Your task to perform on an android device: Clear all items from cart on amazon.com. Add razer blackwidow to the cart on amazon.com Image 0: 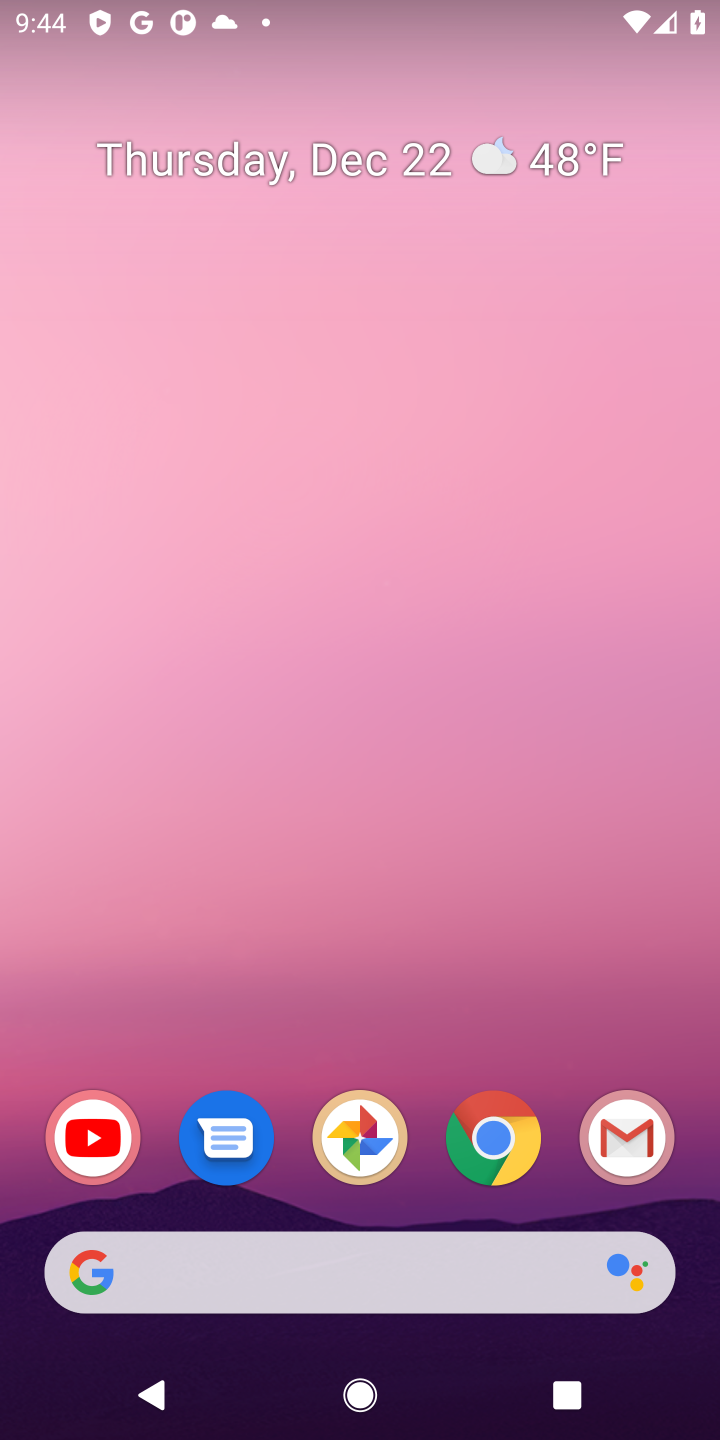
Step 0: click (486, 1142)
Your task to perform on an android device: Clear all items from cart on amazon.com. Add razer blackwidow to the cart on amazon.com Image 1: 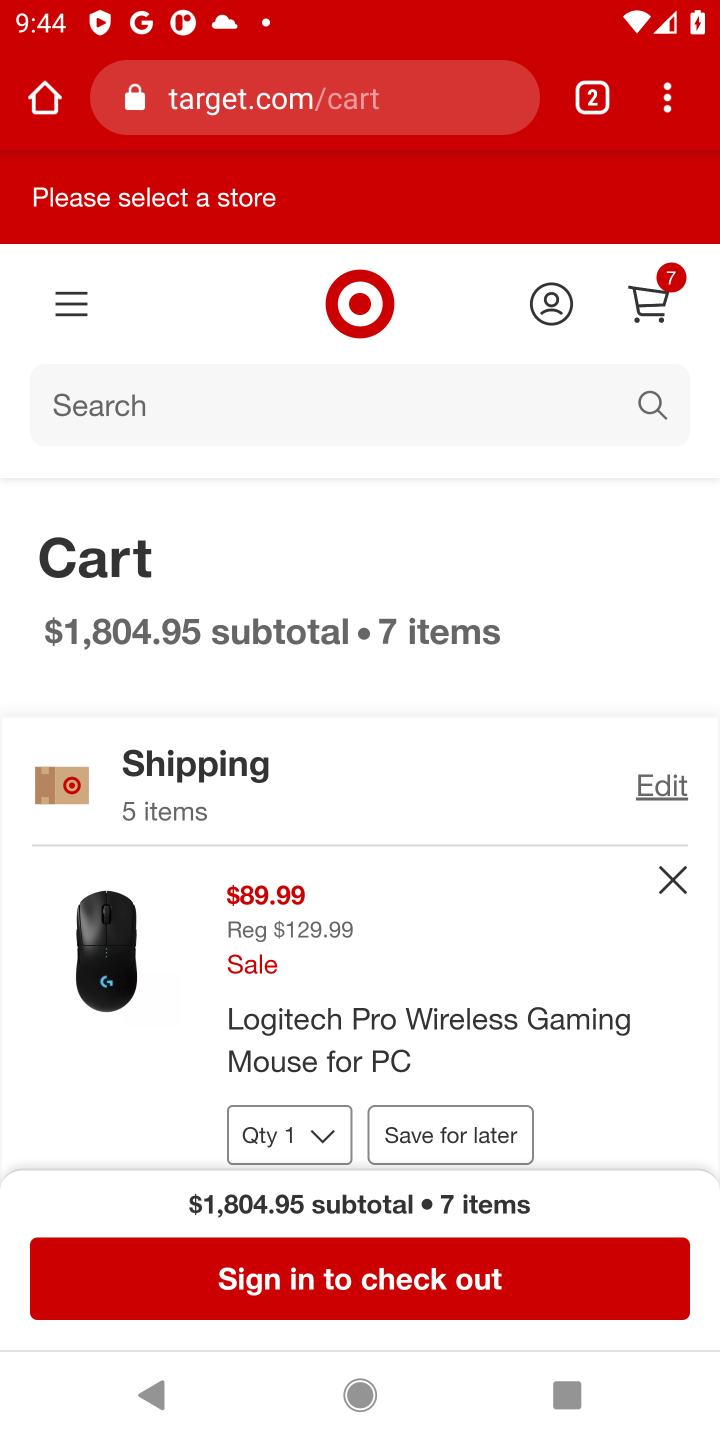
Step 1: click (212, 123)
Your task to perform on an android device: Clear all items from cart on amazon.com. Add razer blackwidow to the cart on amazon.com Image 2: 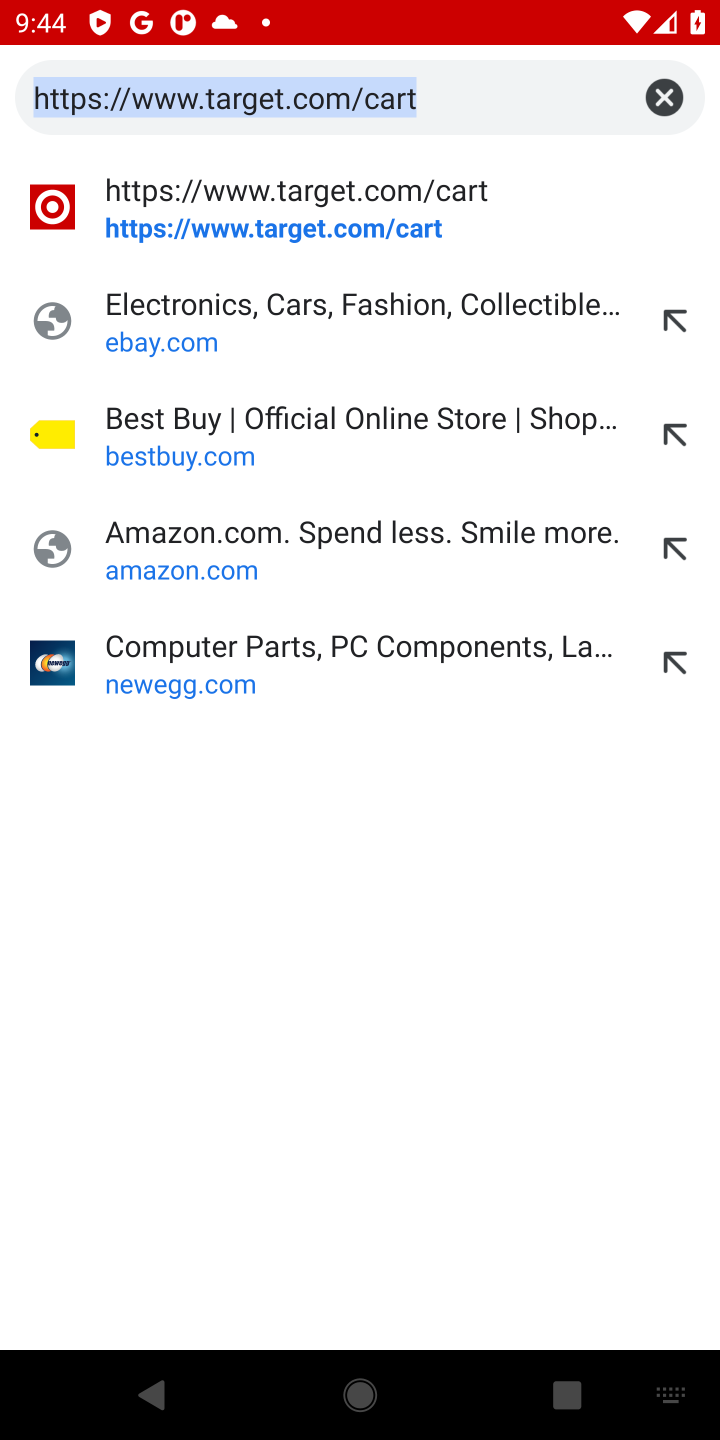
Step 2: type "amazon.com"
Your task to perform on an android device: Clear all items from cart on amazon.com. Add razer blackwidow to the cart on amazon.com Image 3: 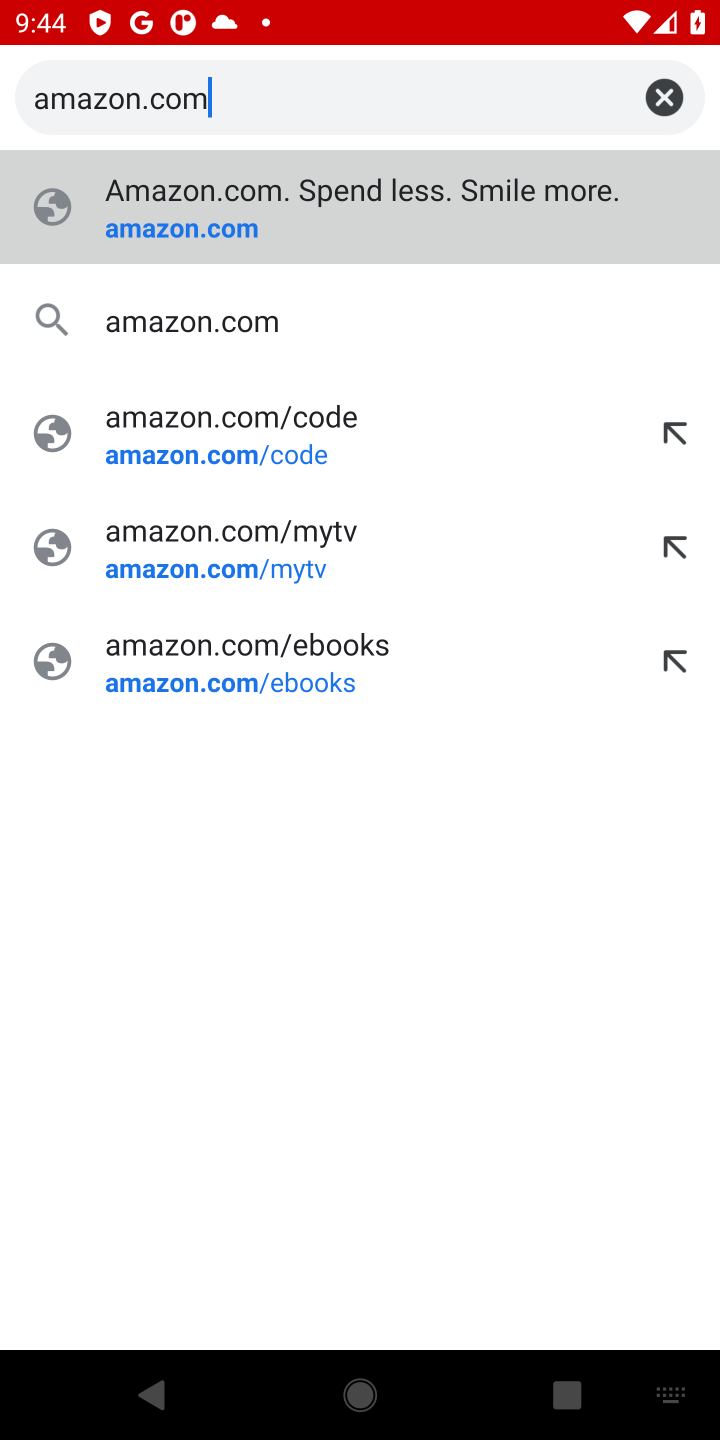
Step 3: press enter
Your task to perform on an android device: Clear all items from cart on amazon.com. Add razer blackwidow to the cart on amazon.com Image 4: 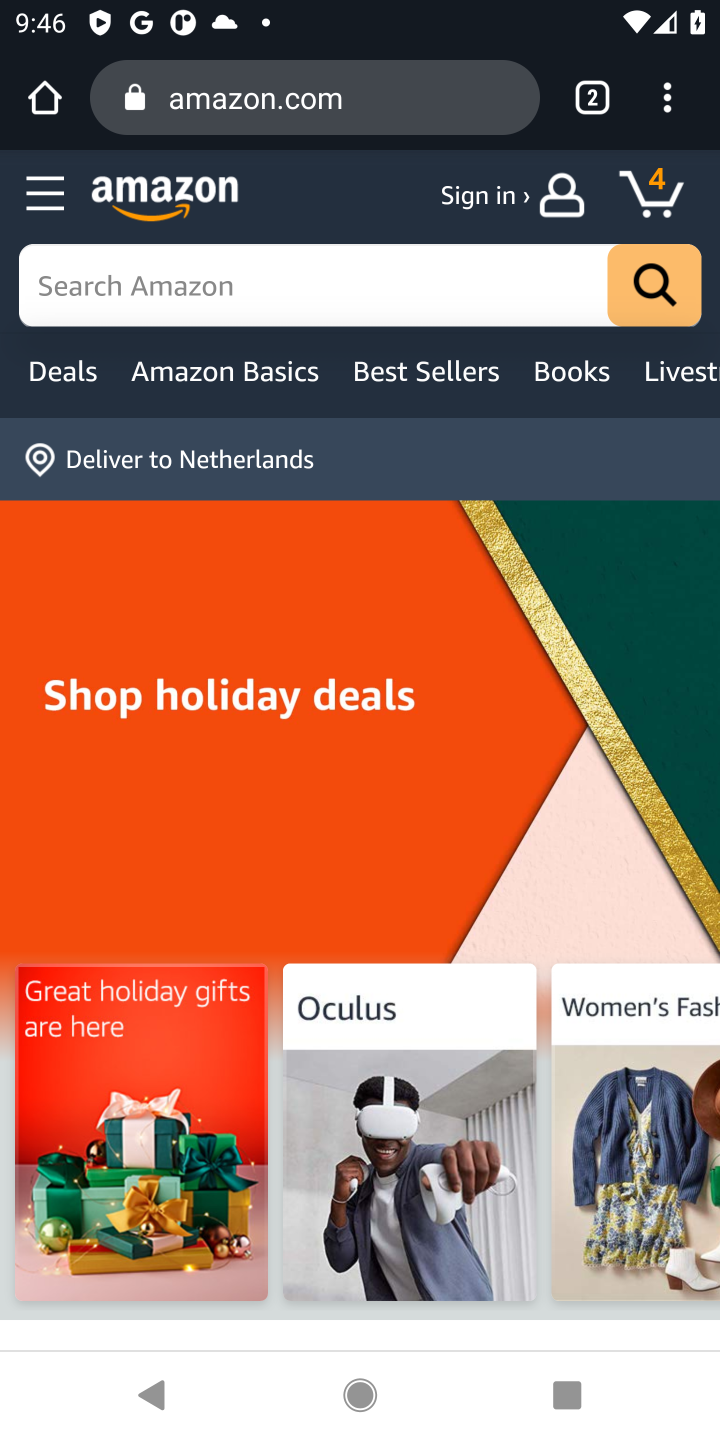
Step 4: click (636, 206)
Your task to perform on an android device: Clear all items from cart on amazon.com. Add razer blackwidow to the cart on amazon.com Image 5: 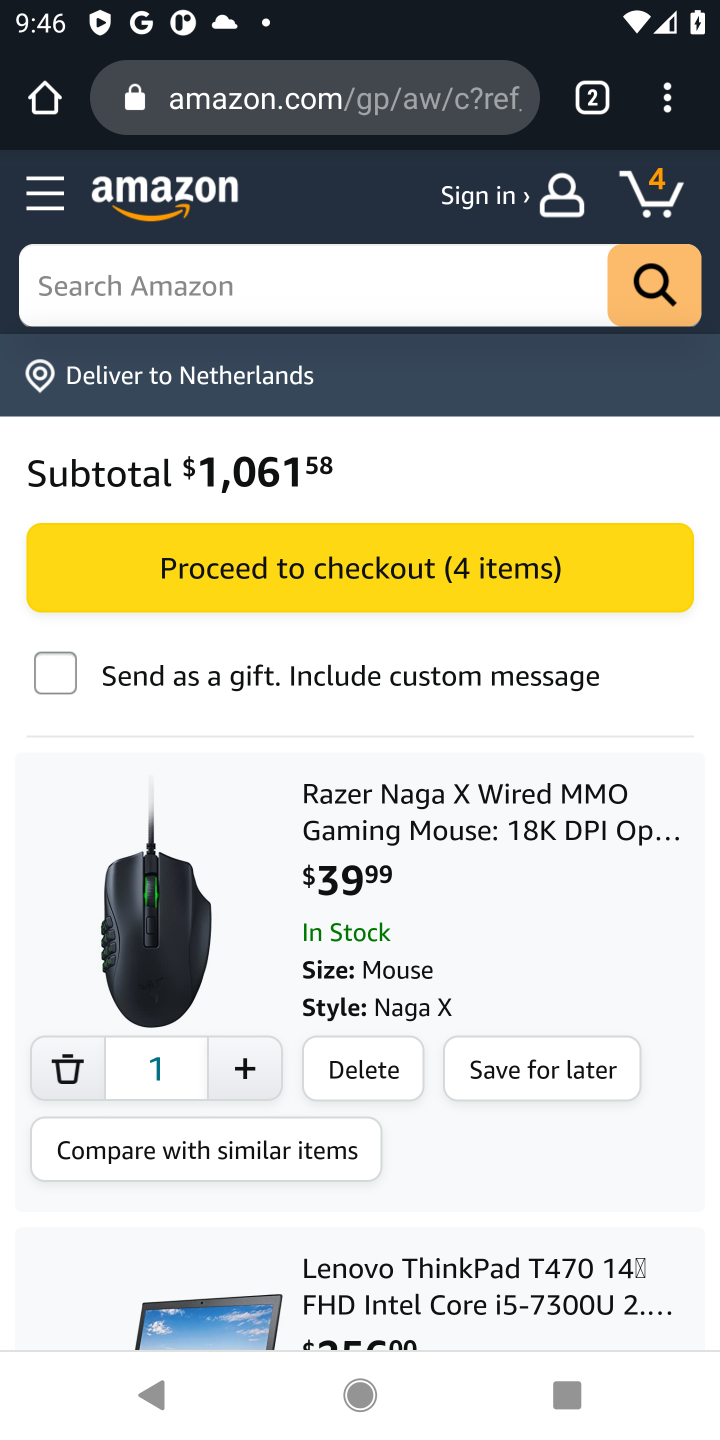
Step 5: click (358, 1086)
Your task to perform on an android device: Clear all items from cart on amazon.com. Add razer blackwidow to the cart on amazon.com Image 6: 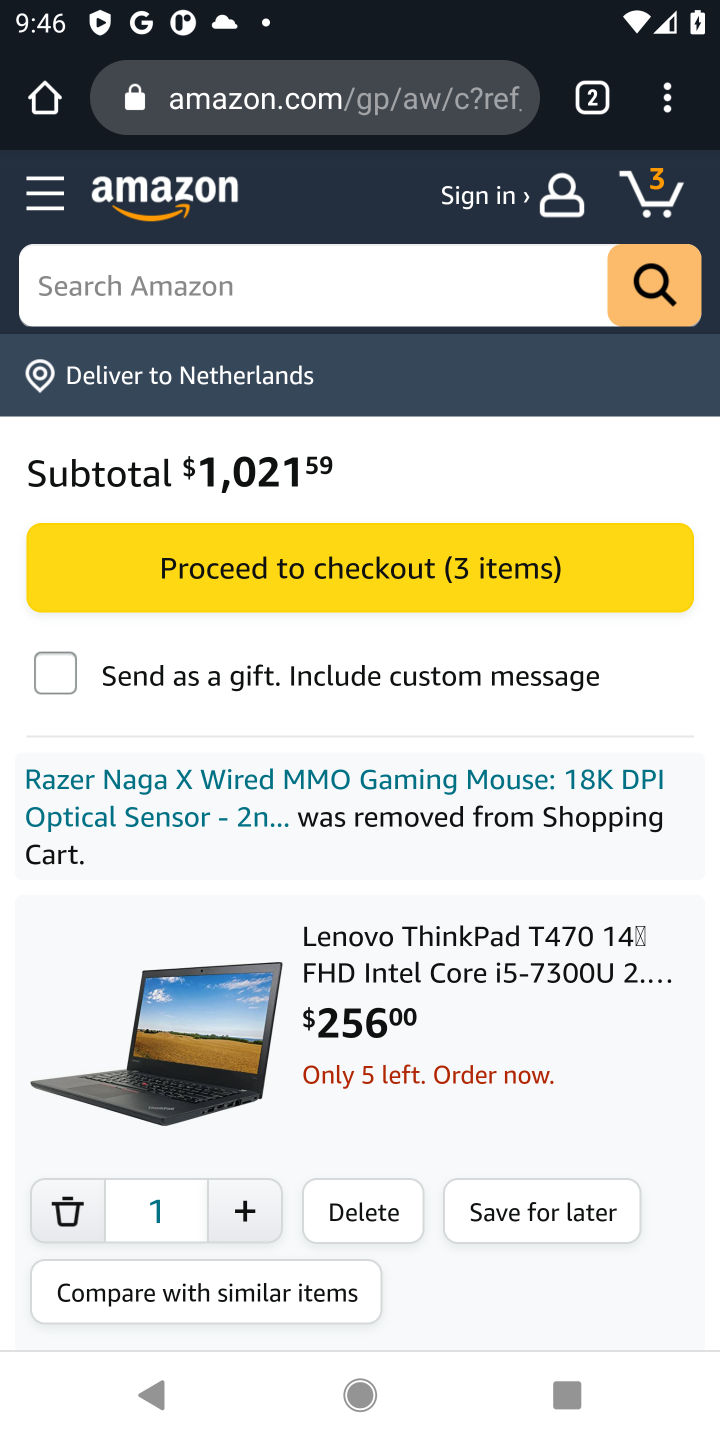
Step 6: click (359, 1210)
Your task to perform on an android device: Clear all items from cart on amazon.com. Add razer blackwidow to the cart on amazon.com Image 7: 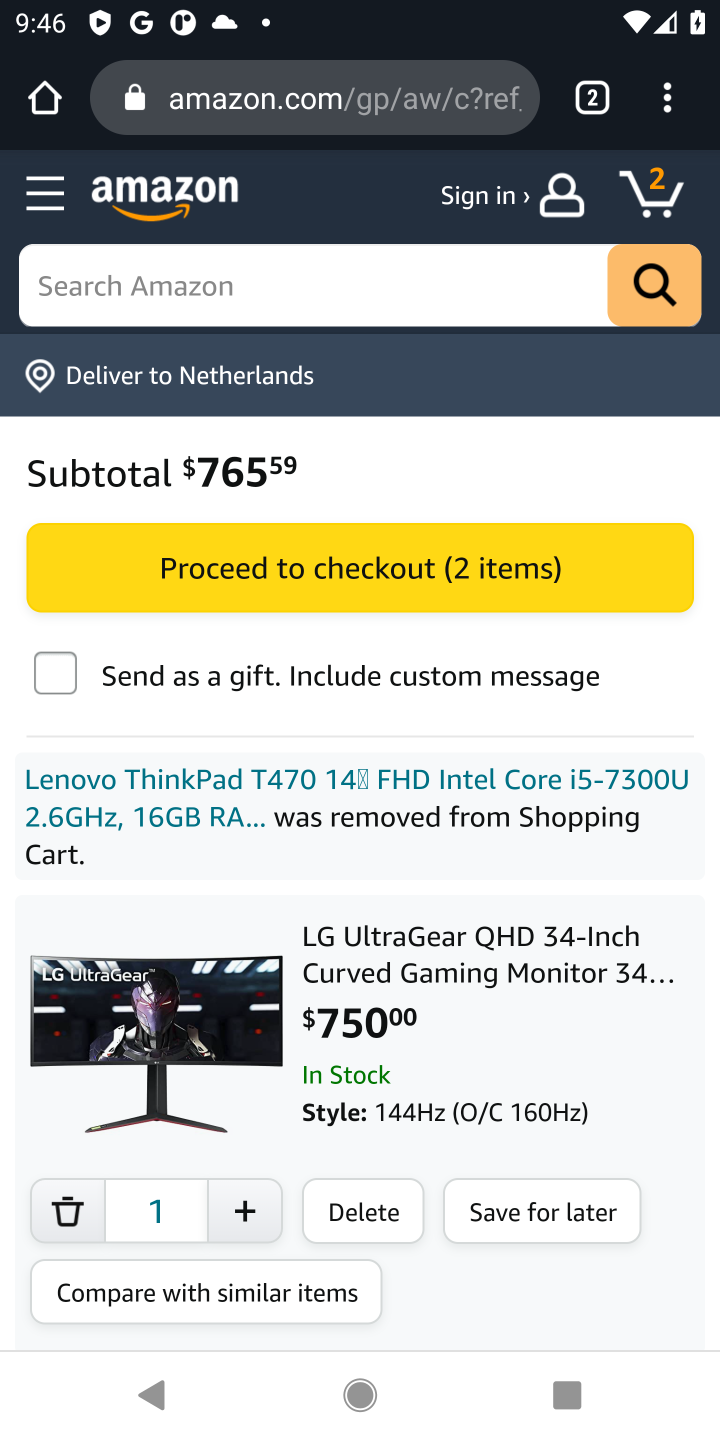
Step 7: click (372, 1201)
Your task to perform on an android device: Clear all items from cart on amazon.com. Add razer blackwidow to the cart on amazon.com Image 8: 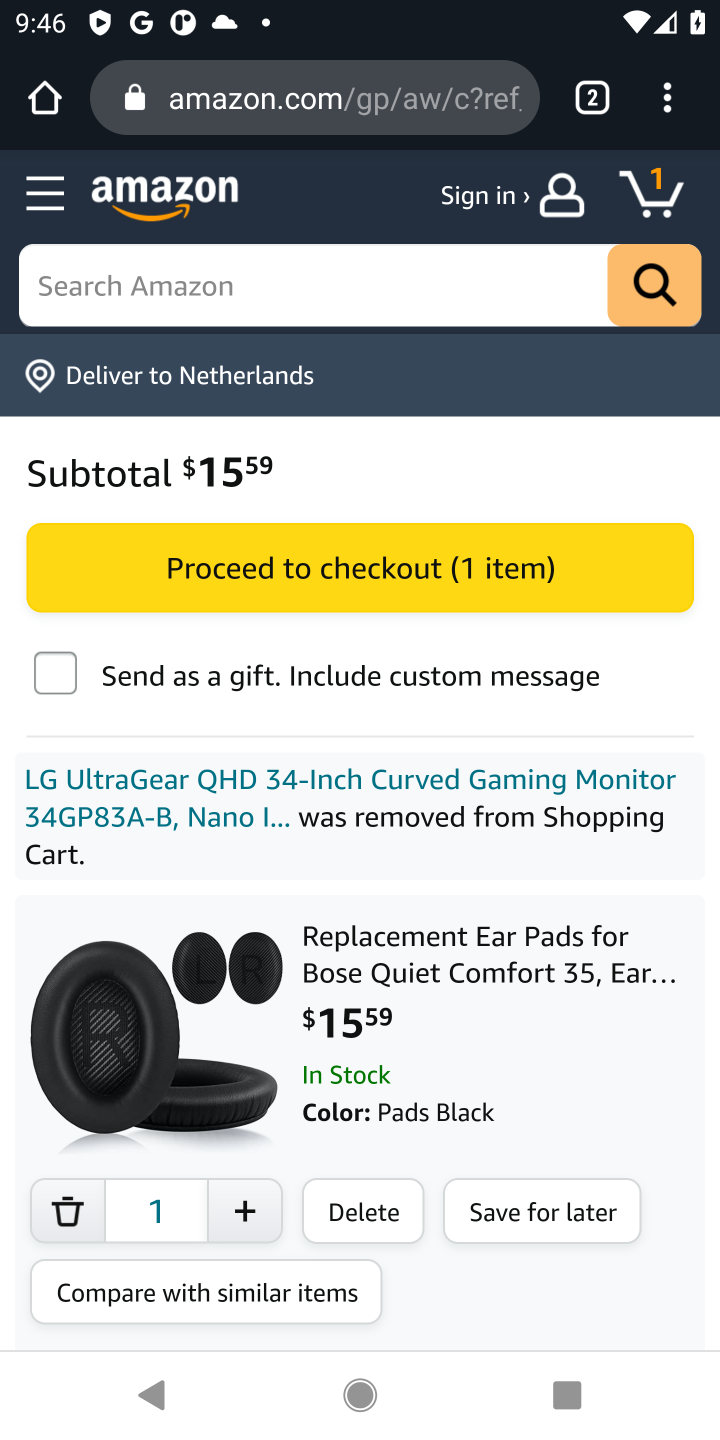
Step 8: click (366, 1215)
Your task to perform on an android device: Clear all items from cart on amazon.com. Add razer blackwidow to the cart on amazon.com Image 9: 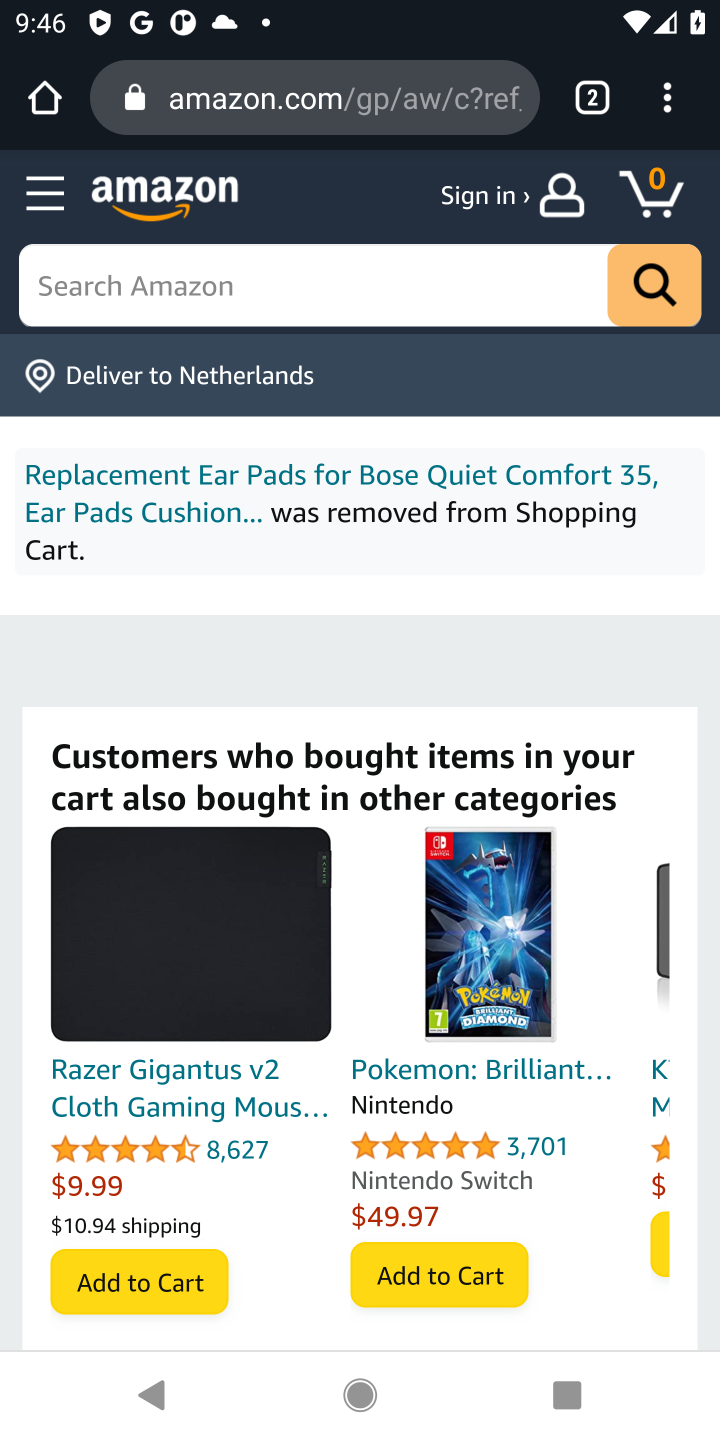
Step 9: click (354, 642)
Your task to perform on an android device: Clear all items from cart on amazon.com. Add razer blackwidow to the cart on amazon.com Image 10: 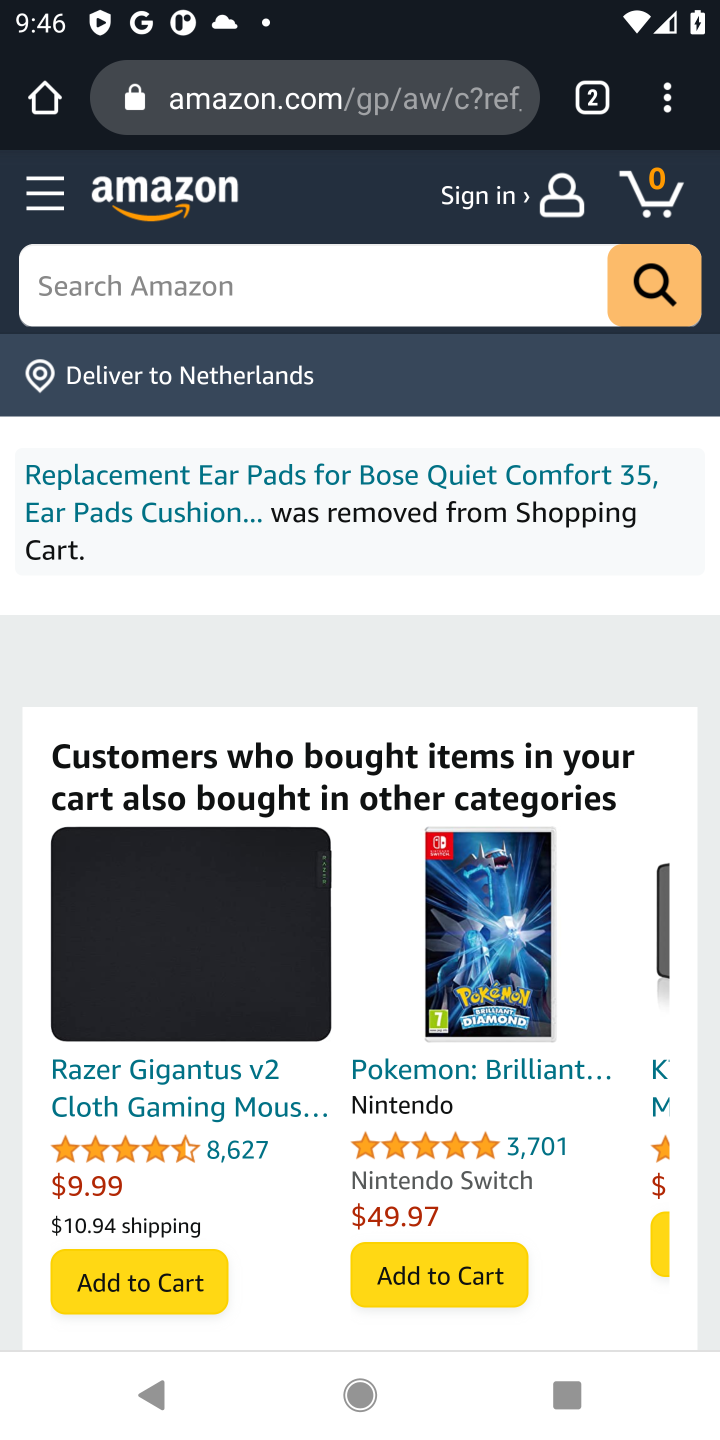
Step 10: drag from (293, 1282) to (299, 1369)
Your task to perform on an android device: Clear all items from cart on amazon.com. Add razer blackwidow to the cart on amazon.com Image 11: 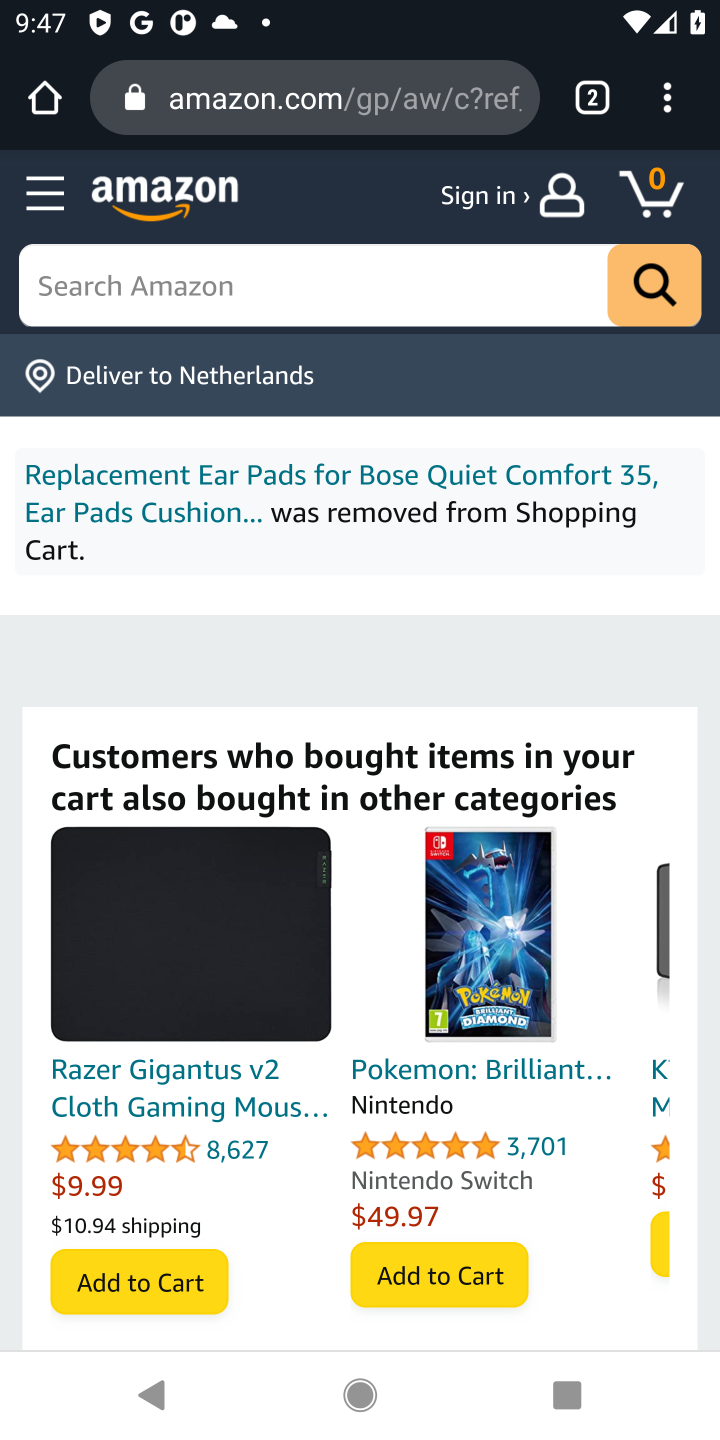
Step 11: click (306, 285)
Your task to perform on an android device: Clear all items from cart on amazon.com. Add razer blackwidow to the cart on amazon.com Image 12: 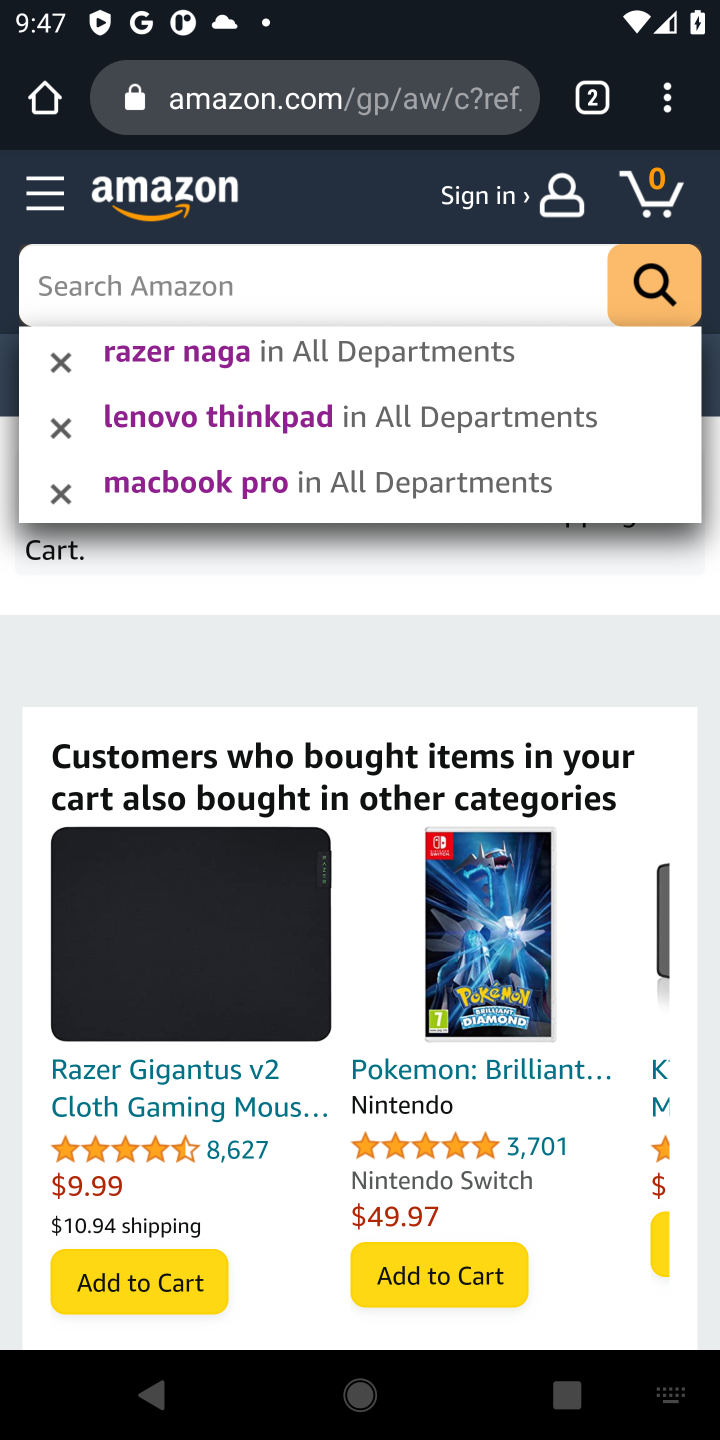
Step 12: type "razer blackwidow"
Your task to perform on an android device: Clear all items from cart on amazon.com. Add razer blackwidow to the cart on amazon.com Image 13: 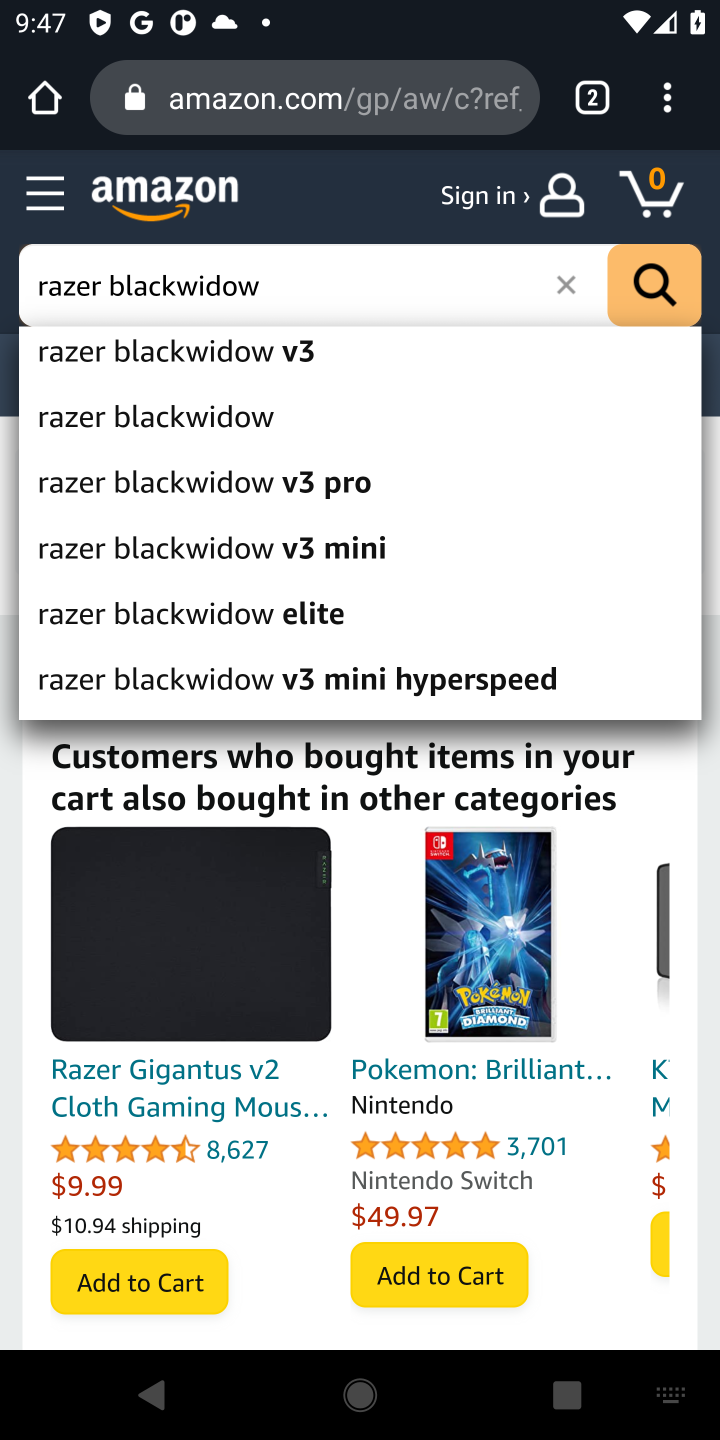
Step 13: click (671, 295)
Your task to perform on an android device: Clear all items from cart on amazon.com. Add razer blackwidow to the cart on amazon.com Image 14: 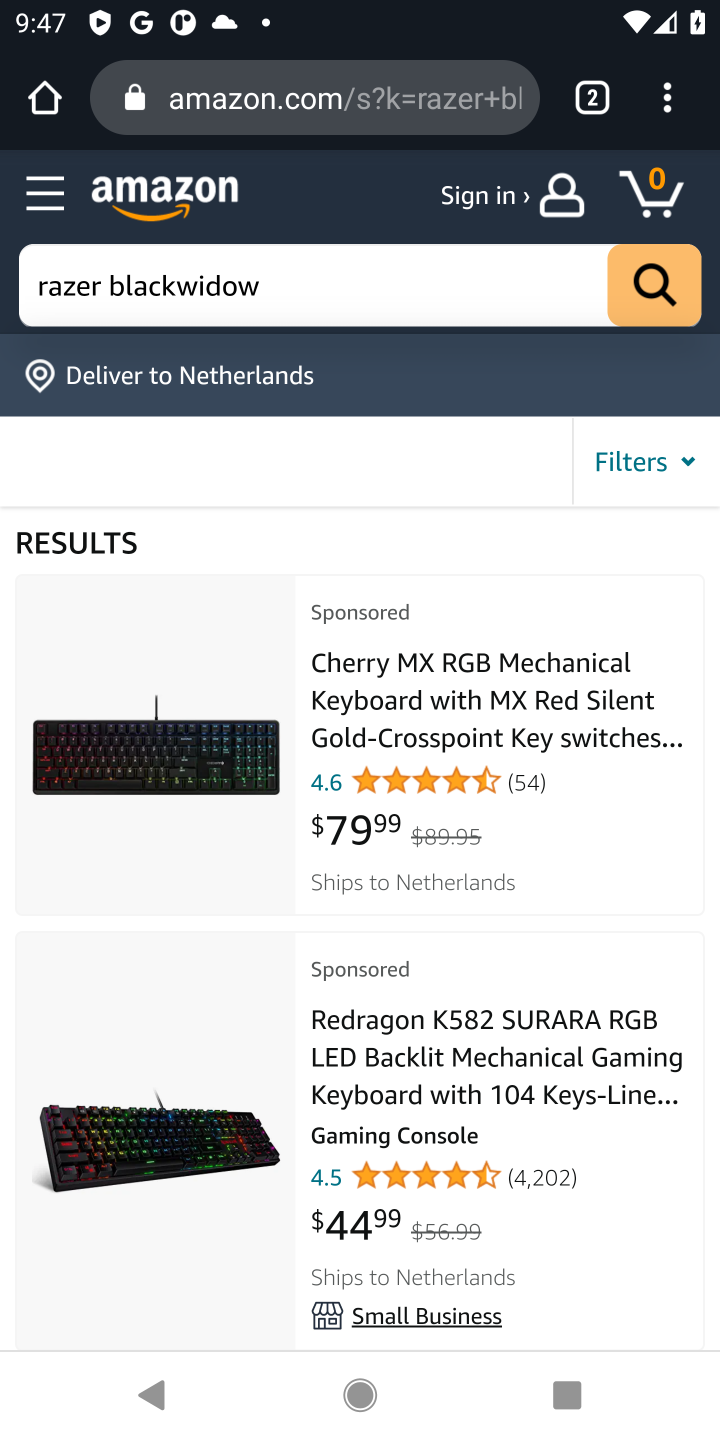
Step 14: drag from (587, 1243) to (579, 647)
Your task to perform on an android device: Clear all items from cart on amazon.com. Add razer blackwidow to the cart on amazon.com Image 15: 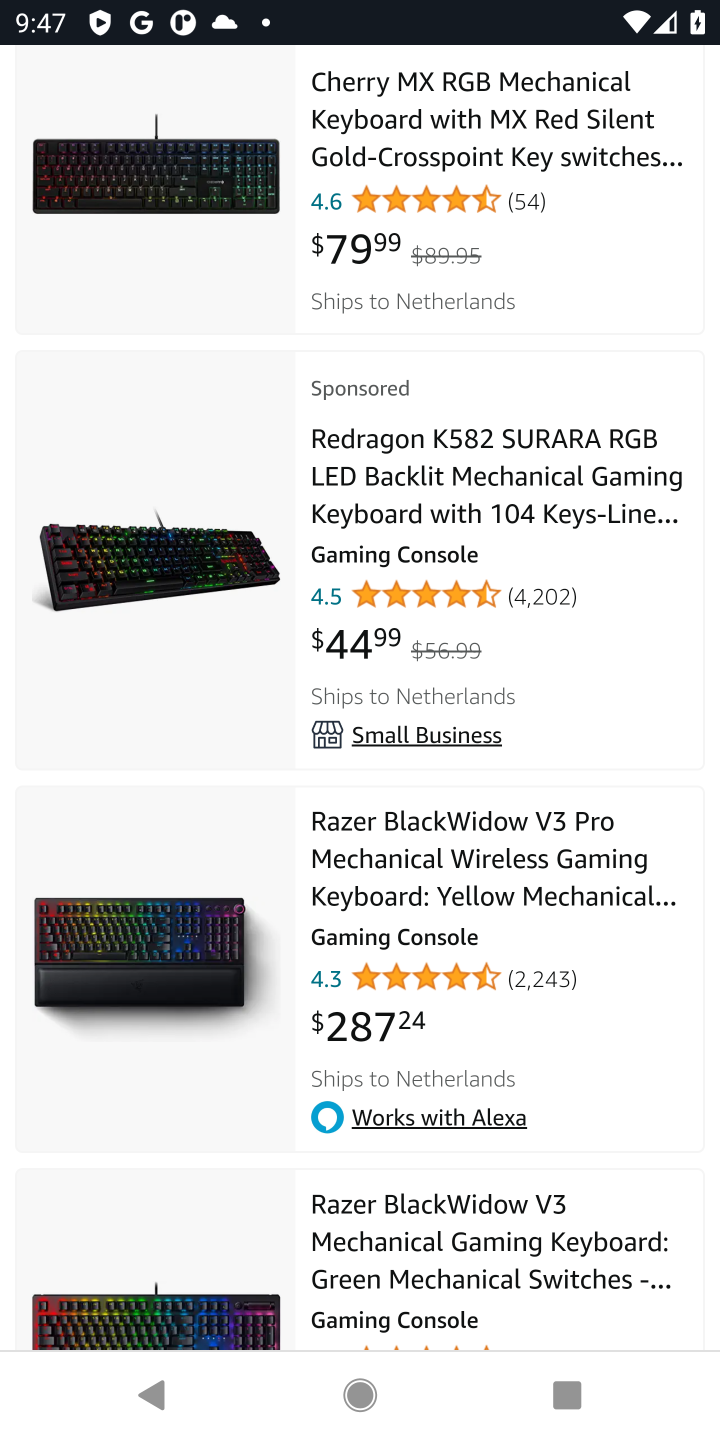
Step 15: click (423, 901)
Your task to perform on an android device: Clear all items from cart on amazon.com. Add razer blackwidow to the cart on amazon.com Image 16: 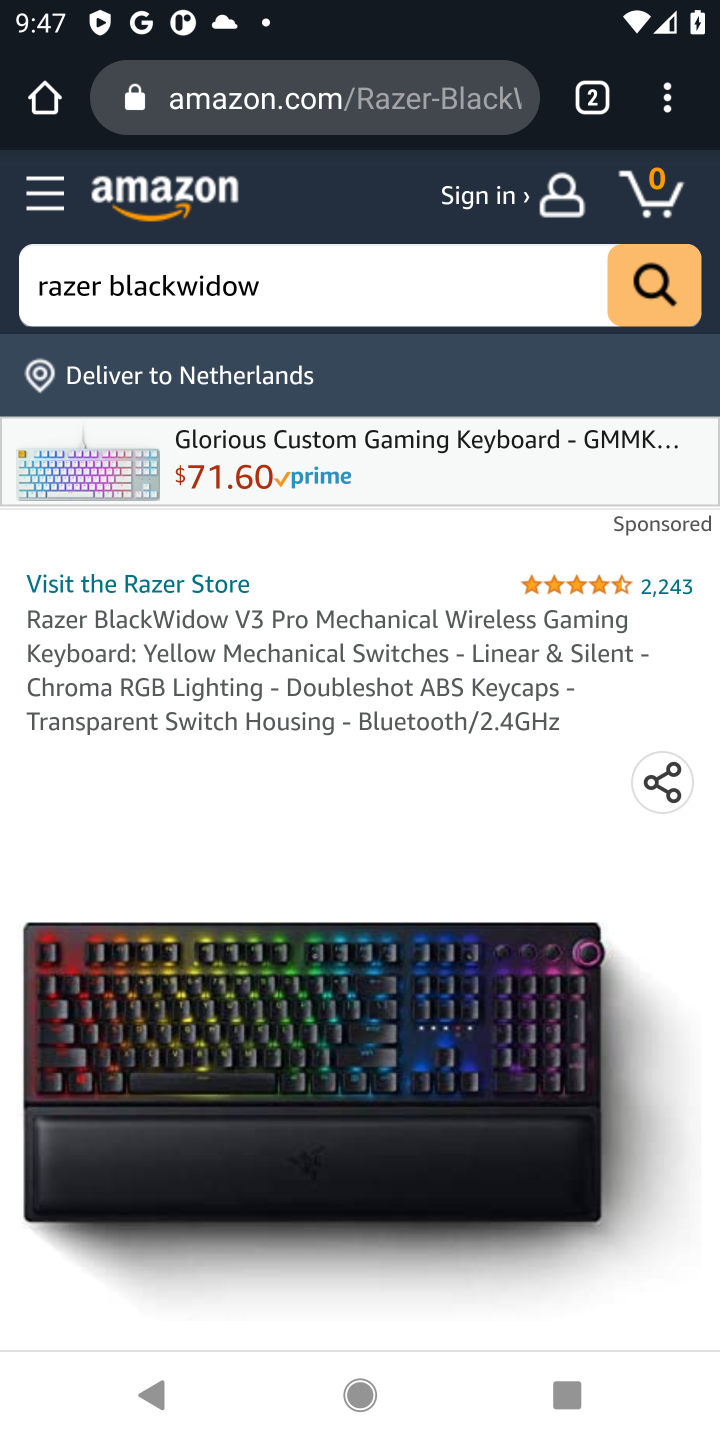
Step 16: drag from (358, 1277) to (399, 332)
Your task to perform on an android device: Clear all items from cart on amazon.com. Add razer blackwidow to the cart on amazon.com Image 17: 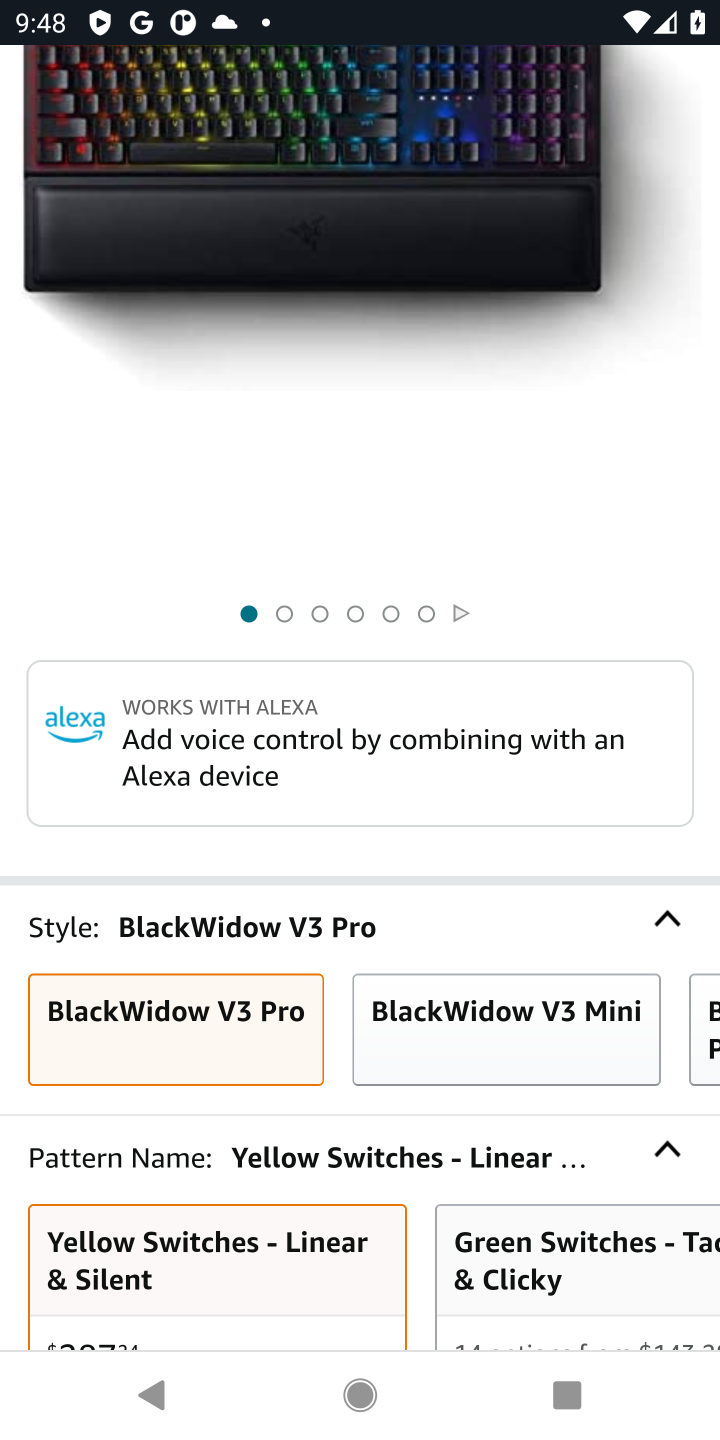
Step 17: drag from (440, 1185) to (403, 459)
Your task to perform on an android device: Clear all items from cart on amazon.com. Add razer blackwidow to the cart on amazon.com Image 18: 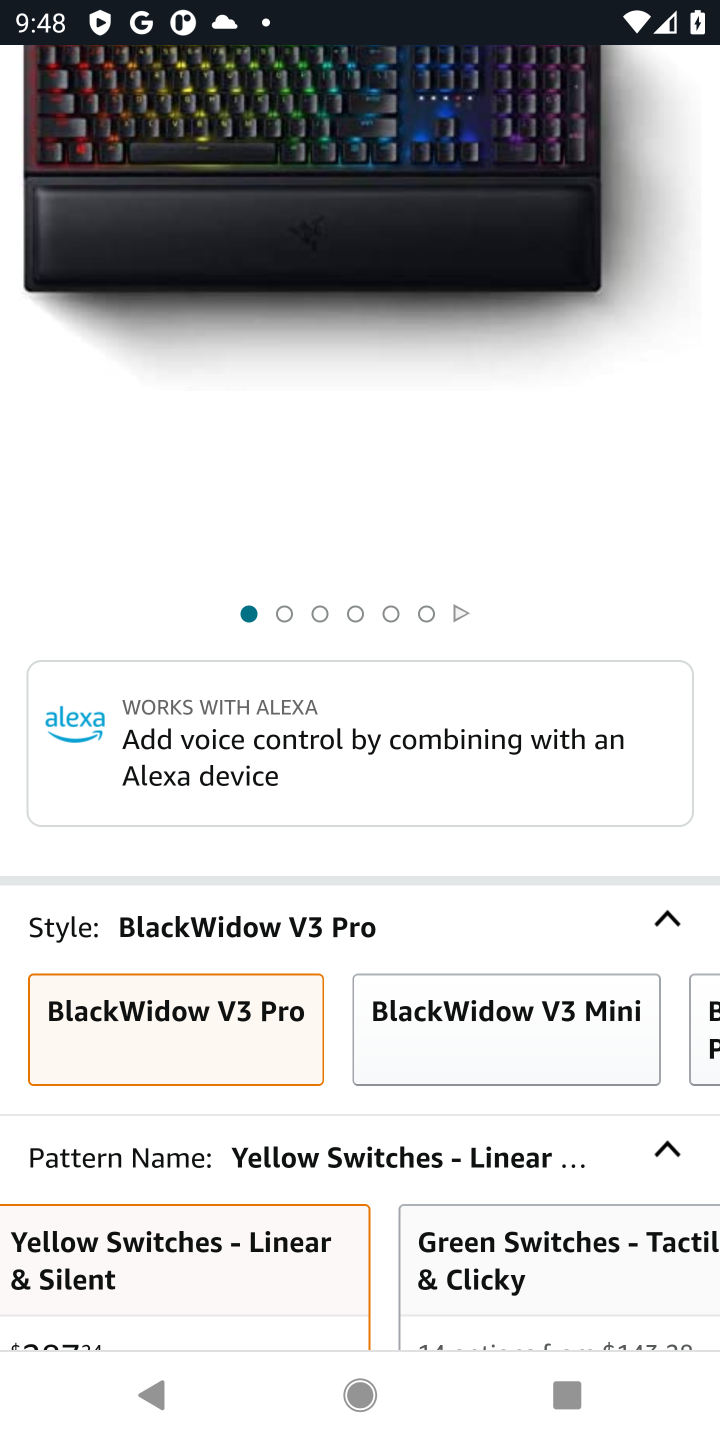
Step 18: drag from (414, 1184) to (505, 749)
Your task to perform on an android device: Clear all items from cart on amazon.com. Add razer blackwidow to the cart on amazon.com Image 19: 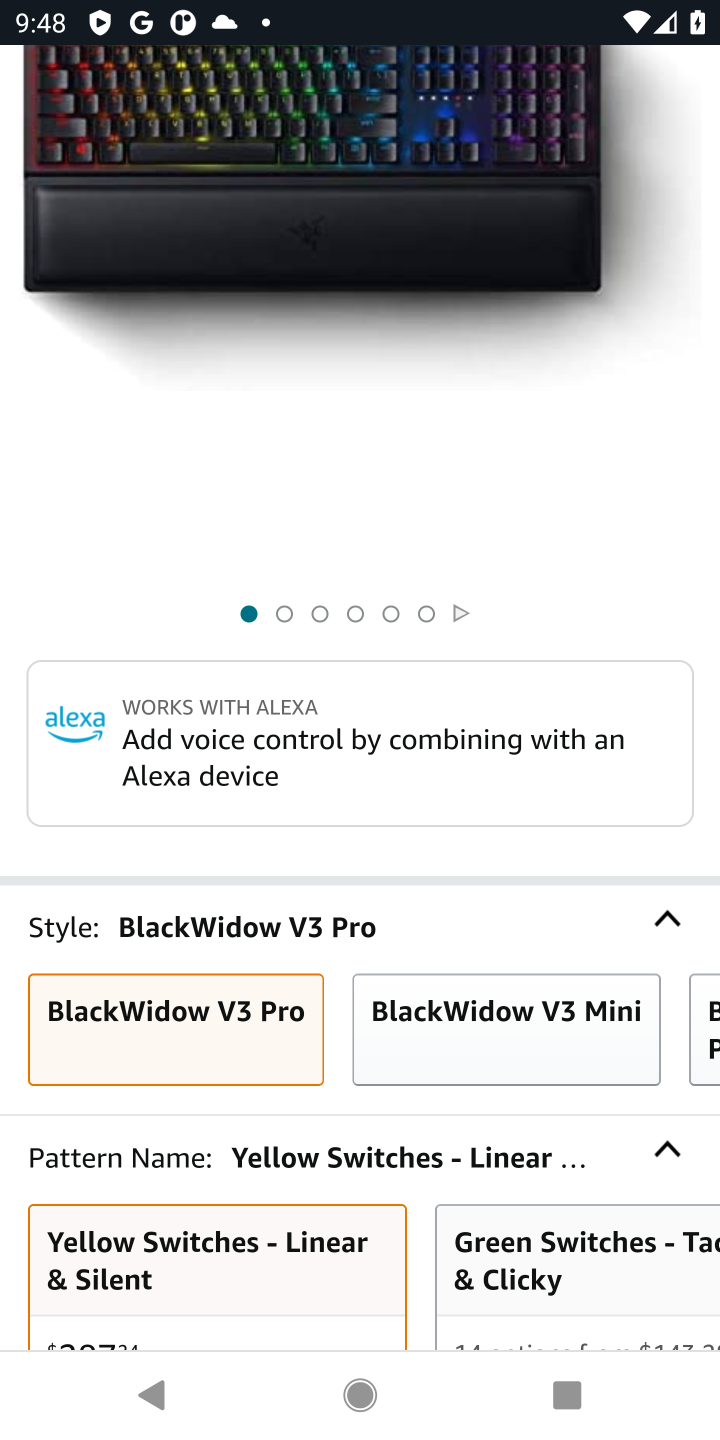
Step 19: drag from (419, 867) to (479, 419)
Your task to perform on an android device: Clear all items from cart on amazon.com. Add razer blackwidow to the cart on amazon.com Image 20: 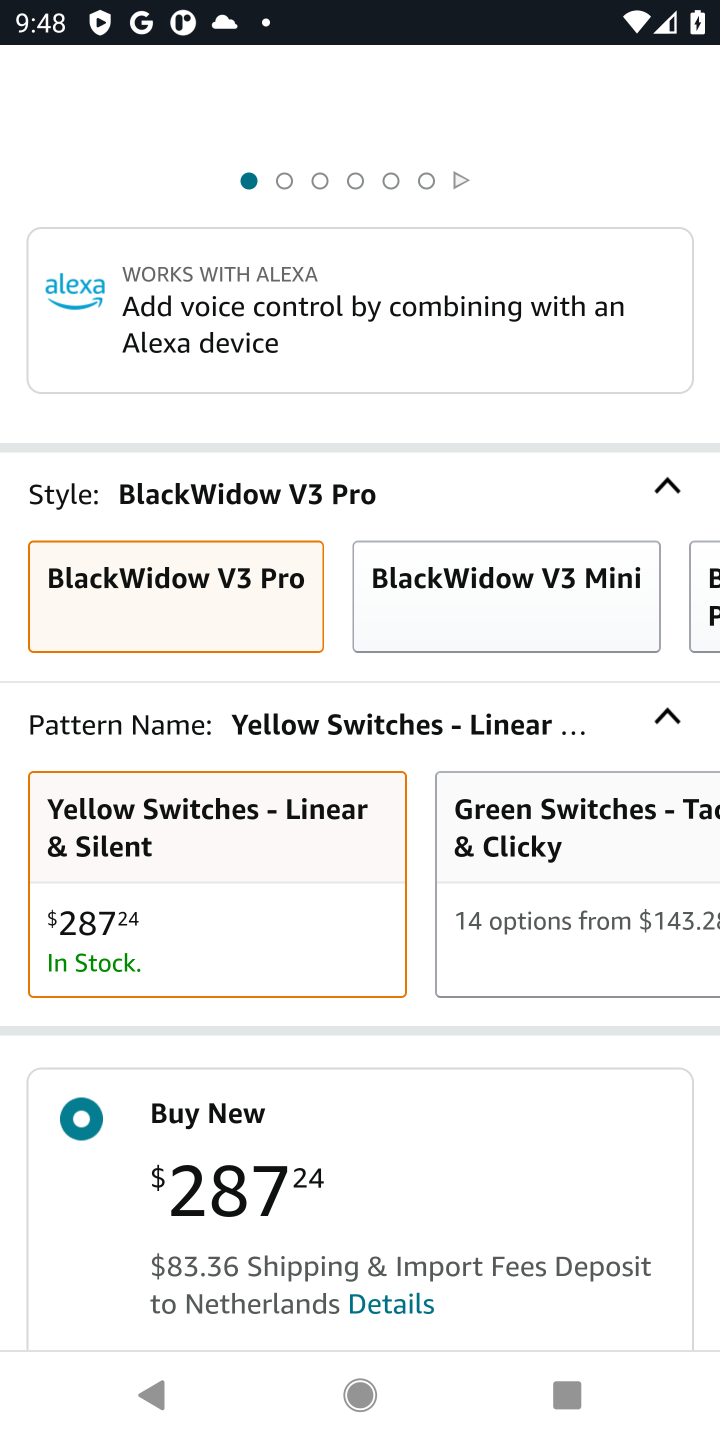
Step 20: drag from (456, 1100) to (558, 464)
Your task to perform on an android device: Clear all items from cart on amazon.com. Add razer blackwidow to the cart on amazon.com Image 21: 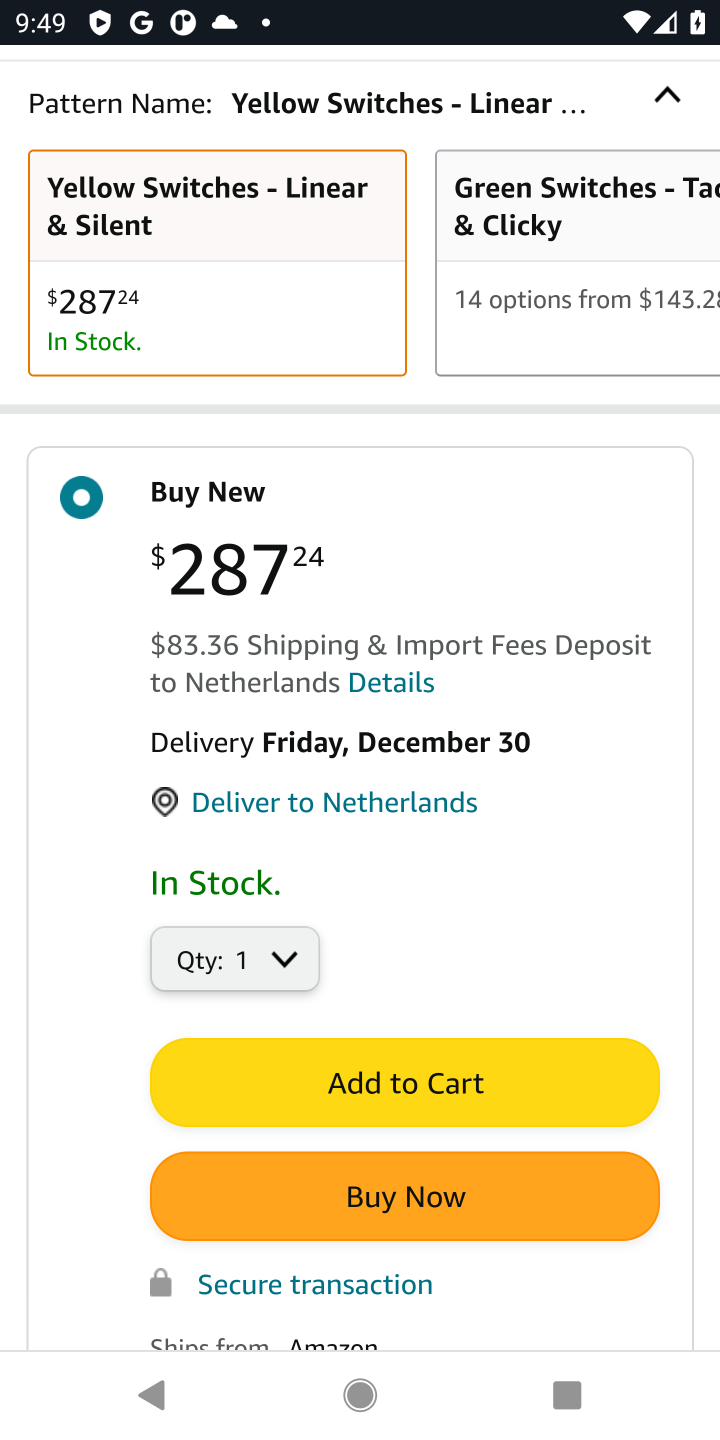
Step 21: click (461, 1099)
Your task to perform on an android device: Clear all items from cart on amazon.com. Add razer blackwidow to the cart on amazon.com Image 22: 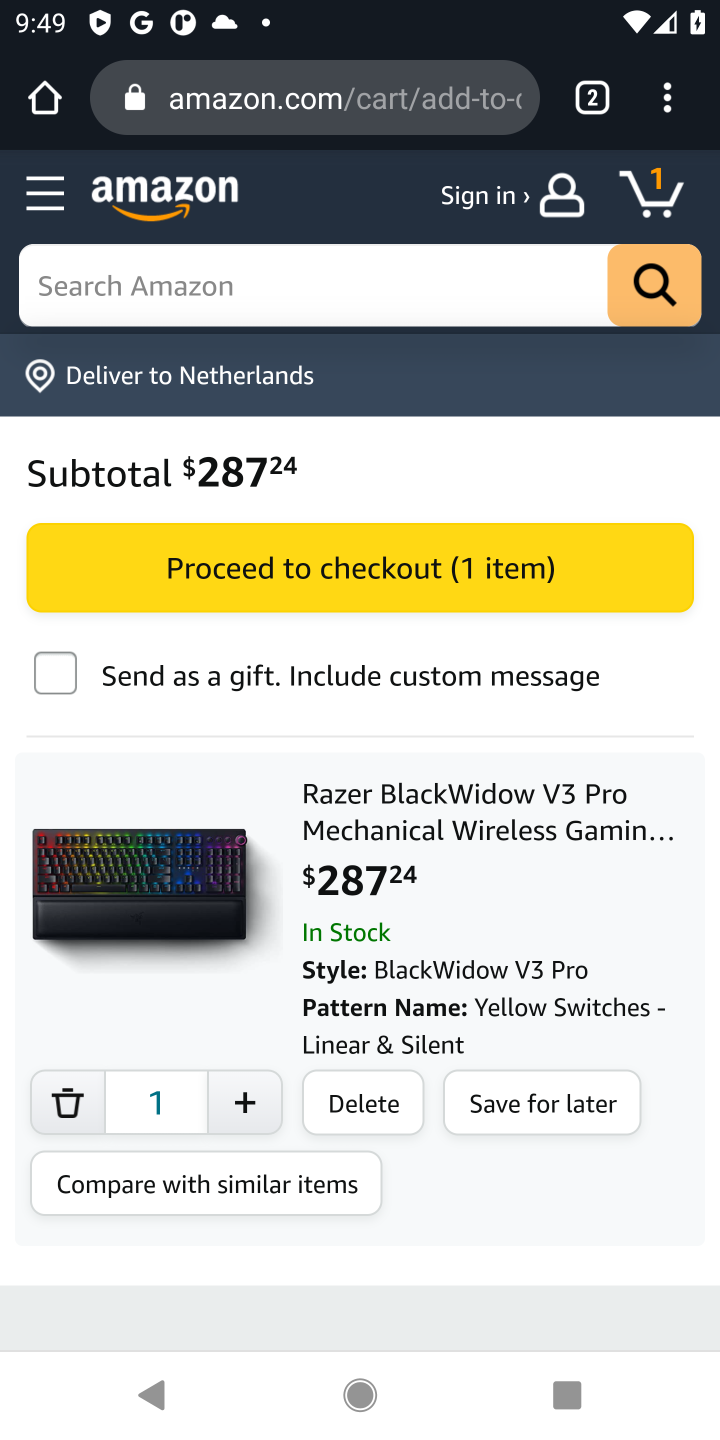
Step 22: click (302, 566)
Your task to perform on an android device: Clear all items from cart on amazon.com. Add razer blackwidow to the cart on amazon.com Image 23: 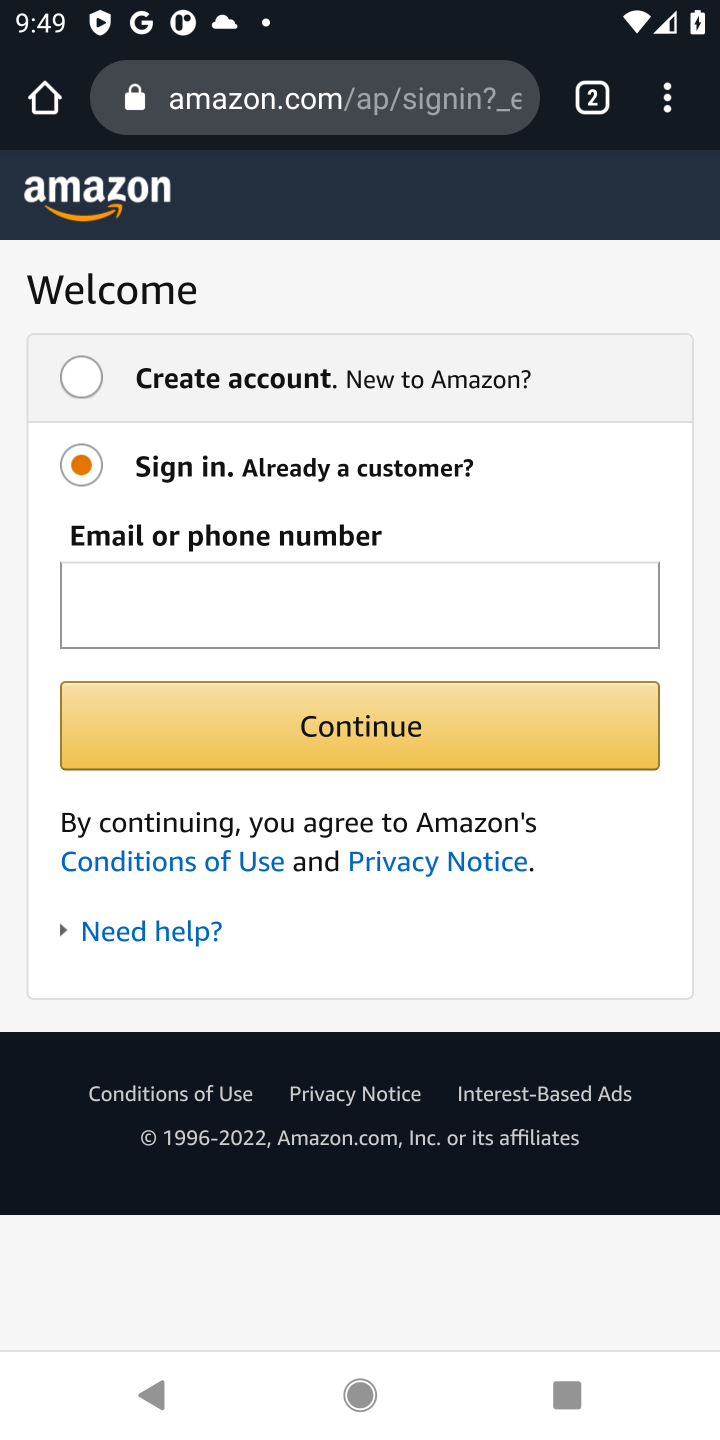
Step 23: task complete